Your task to perform on an android device: Go to Android settings Image 0: 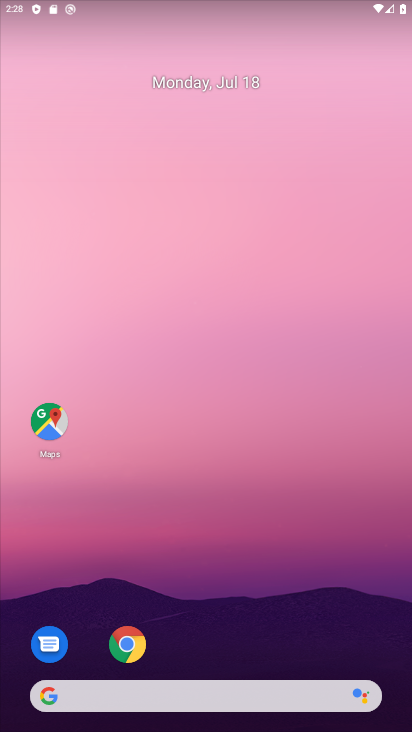
Step 0: drag from (228, 691) to (146, 134)
Your task to perform on an android device: Go to Android settings Image 1: 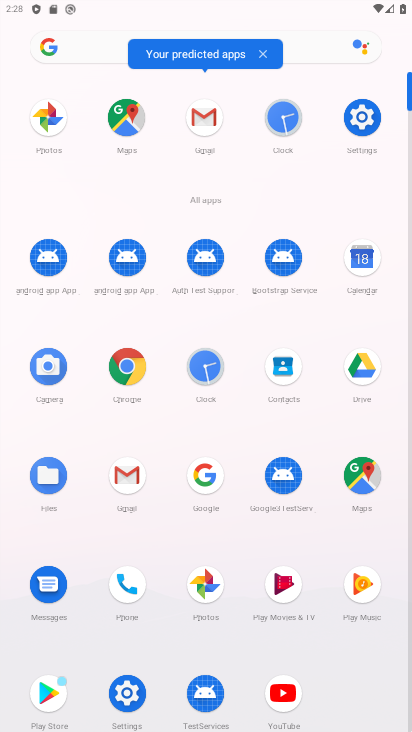
Step 1: click (357, 120)
Your task to perform on an android device: Go to Android settings Image 2: 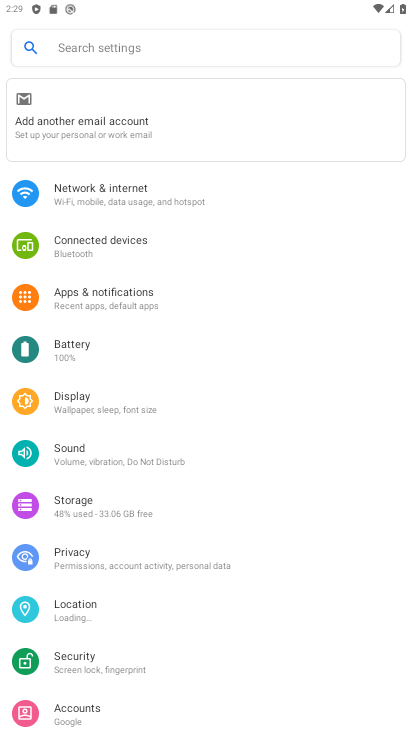
Step 2: task complete